Your task to perform on an android device: Open internet settings Image 0: 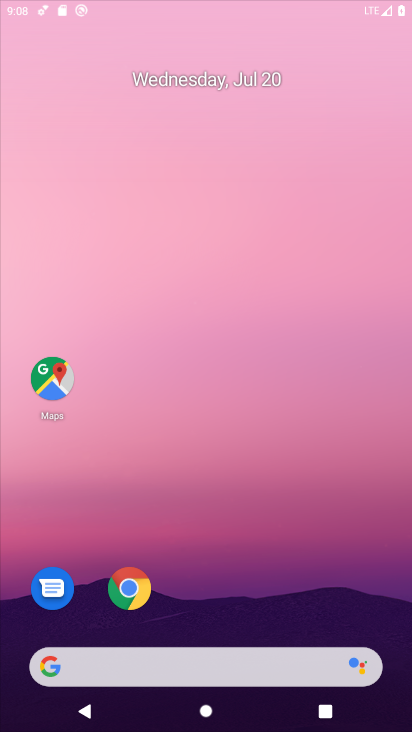
Step 0: press home button
Your task to perform on an android device: Open internet settings Image 1: 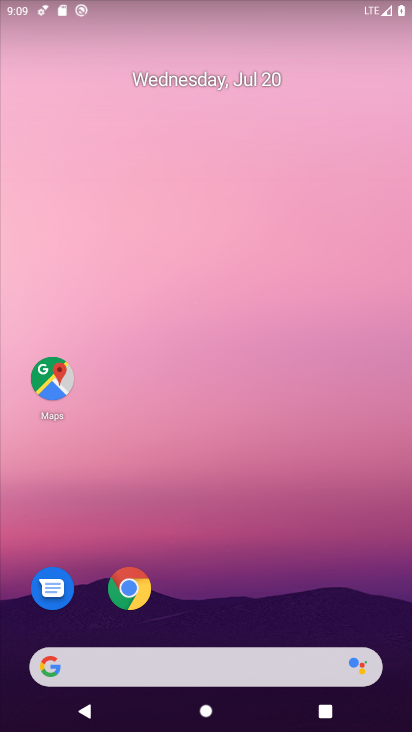
Step 1: drag from (208, 630) to (249, 53)
Your task to perform on an android device: Open internet settings Image 2: 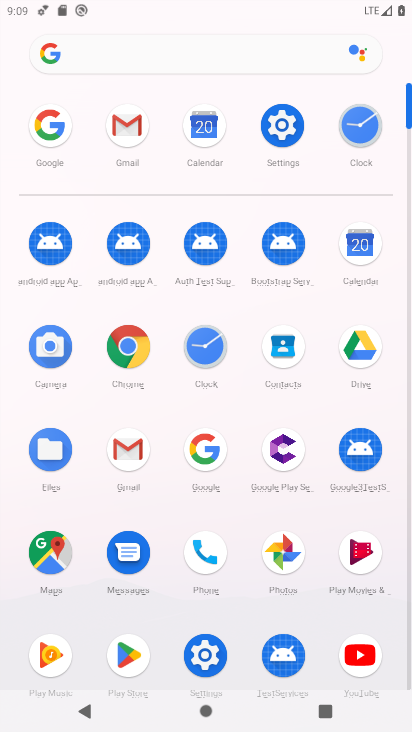
Step 2: click (280, 122)
Your task to perform on an android device: Open internet settings Image 3: 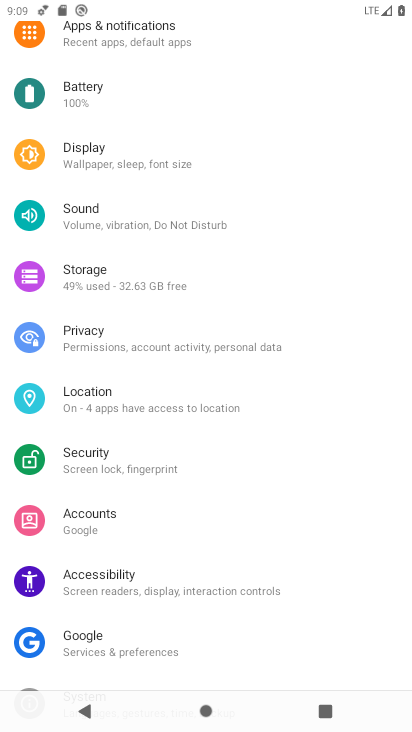
Step 3: drag from (186, 93) to (190, 604)
Your task to perform on an android device: Open internet settings Image 4: 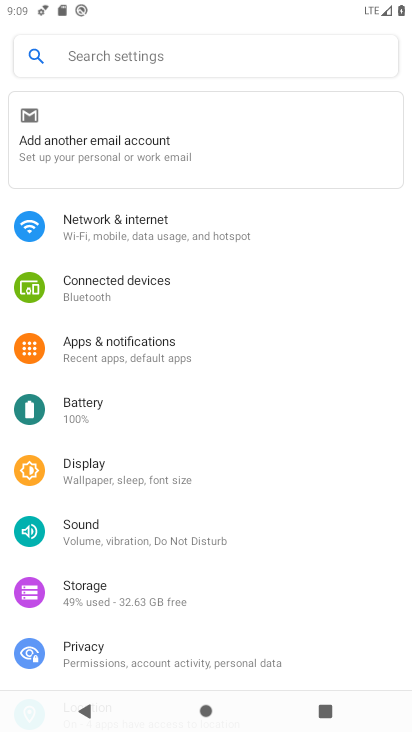
Step 4: click (188, 221)
Your task to perform on an android device: Open internet settings Image 5: 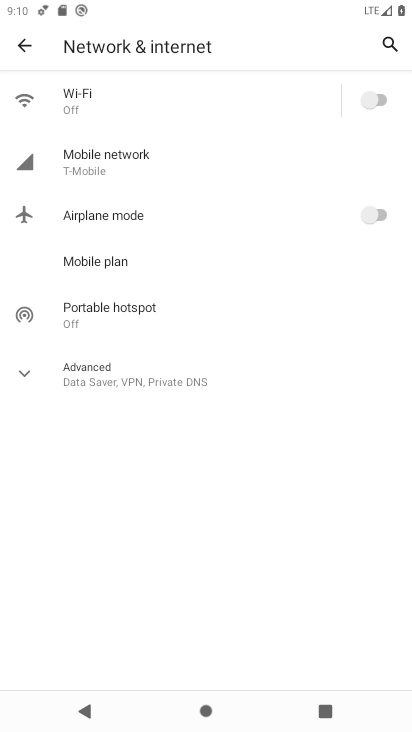
Step 5: click (23, 367)
Your task to perform on an android device: Open internet settings Image 6: 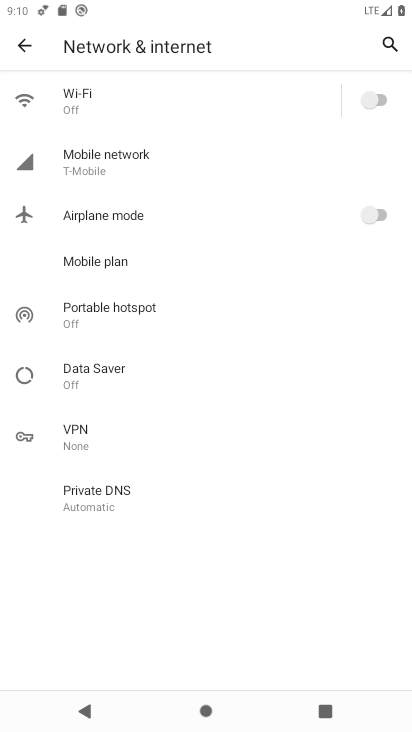
Step 6: task complete